Your task to perform on an android device: show emergency info Image 0: 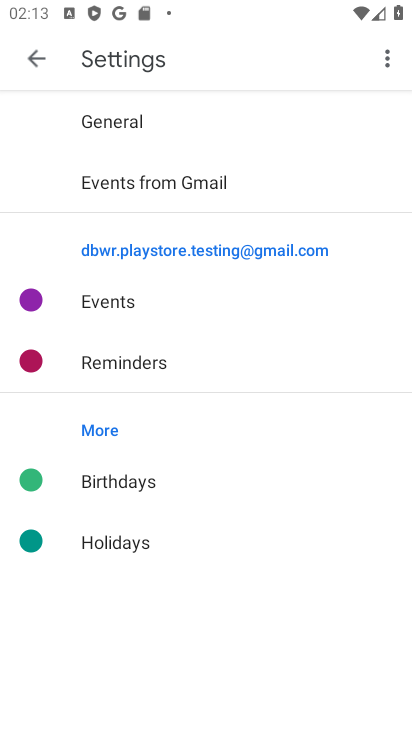
Step 0: press home button
Your task to perform on an android device: show emergency info Image 1: 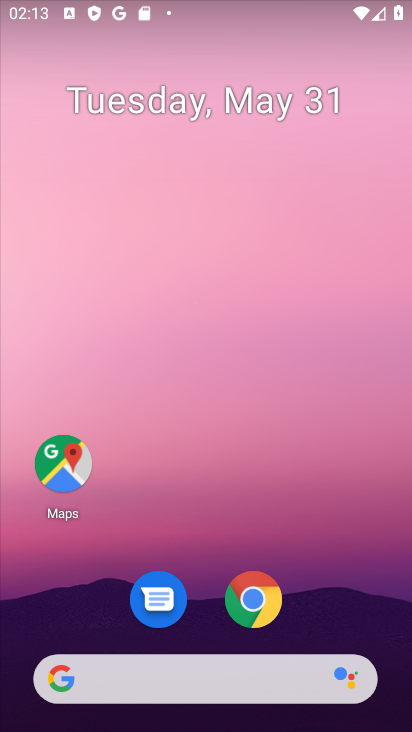
Step 1: drag from (350, 589) to (215, 76)
Your task to perform on an android device: show emergency info Image 2: 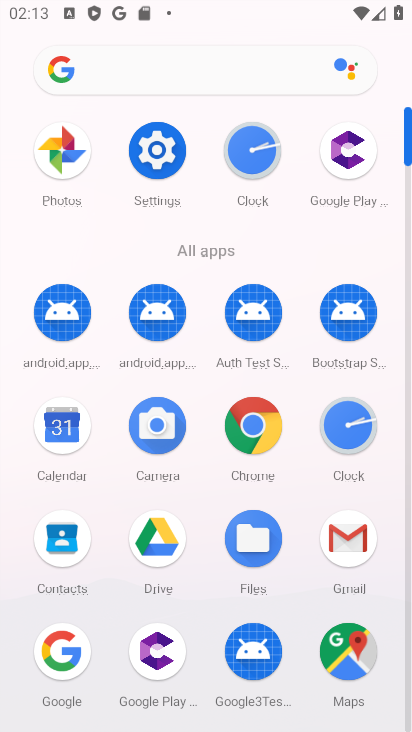
Step 2: click (151, 175)
Your task to perform on an android device: show emergency info Image 3: 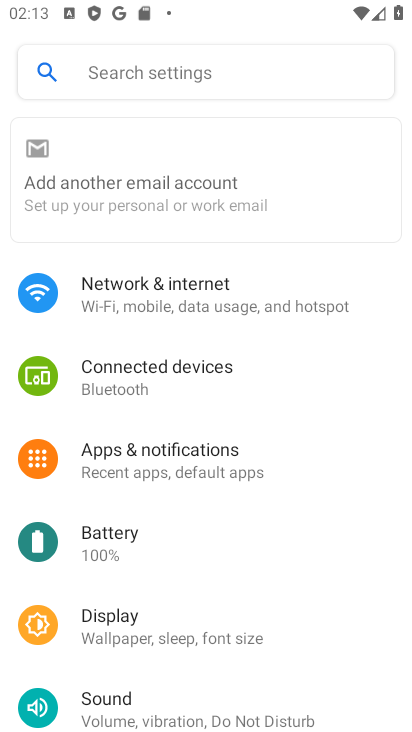
Step 3: drag from (223, 600) to (201, 72)
Your task to perform on an android device: show emergency info Image 4: 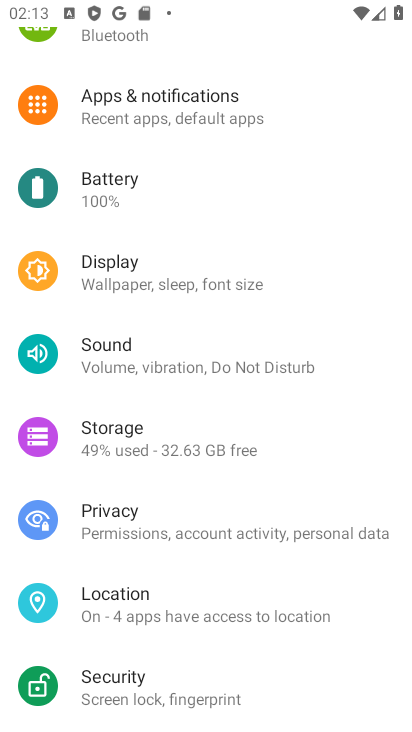
Step 4: drag from (238, 628) to (166, 151)
Your task to perform on an android device: show emergency info Image 5: 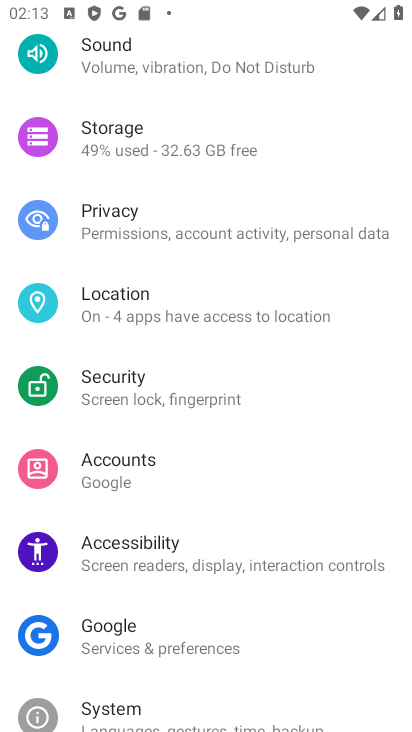
Step 5: drag from (208, 689) to (178, 224)
Your task to perform on an android device: show emergency info Image 6: 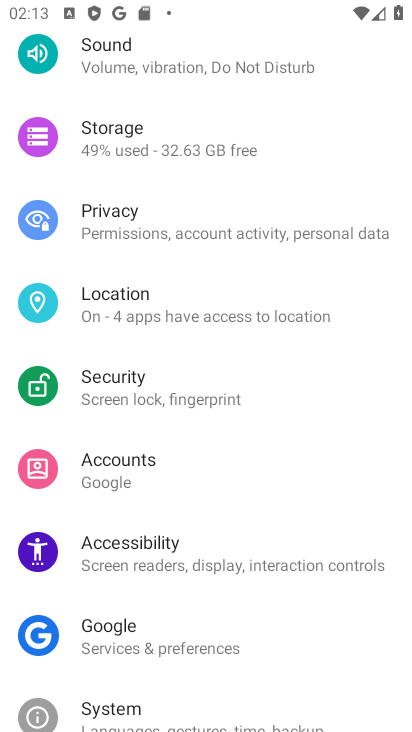
Step 6: drag from (181, 606) to (171, 196)
Your task to perform on an android device: show emergency info Image 7: 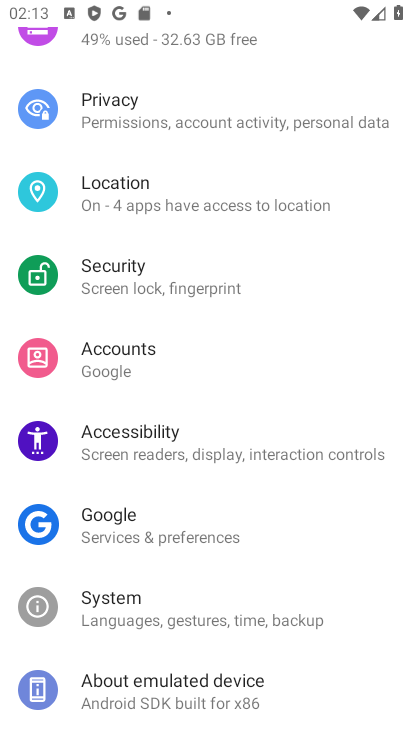
Step 7: click (175, 694)
Your task to perform on an android device: show emergency info Image 8: 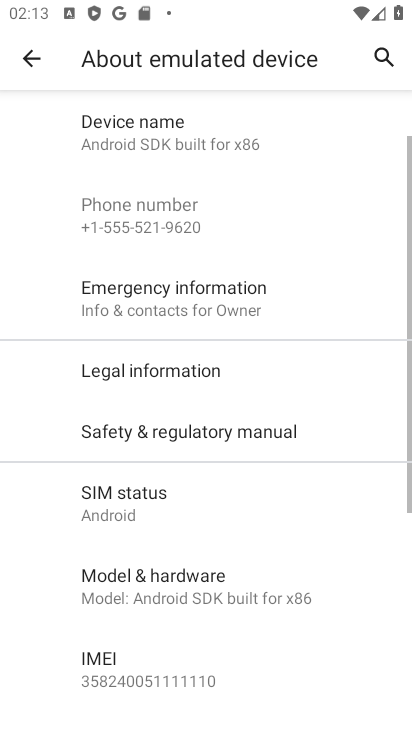
Step 8: drag from (202, 579) to (185, 100)
Your task to perform on an android device: show emergency info Image 9: 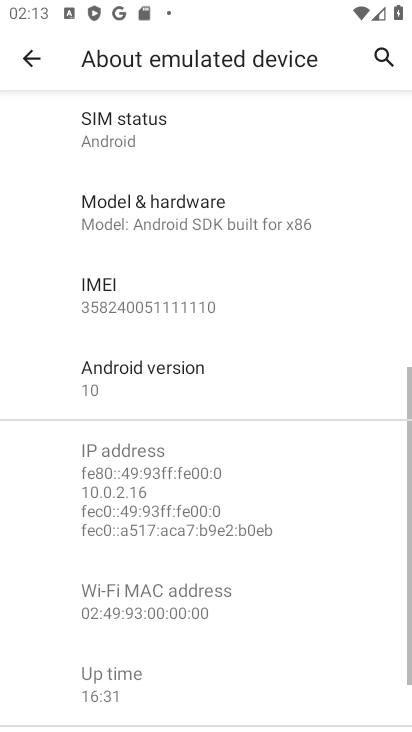
Step 9: drag from (186, 529) to (159, 727)
Your task to perform on an android device: show emergency info Image 10: 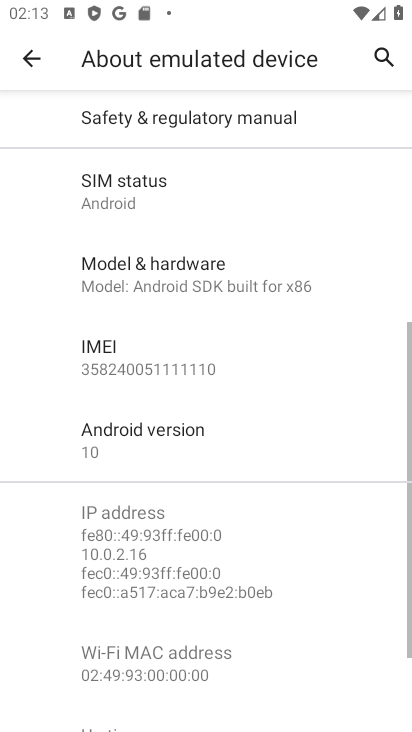
Step 10: drag from (172, 170) to (178, 630)
Your task to perform on an android device: show emergency info Image 11: 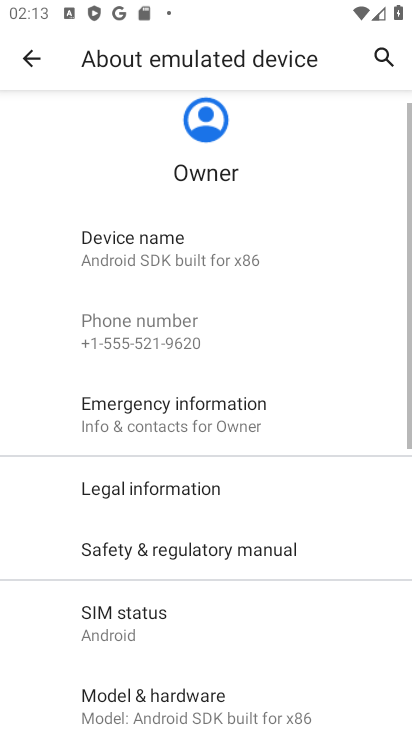
Step 11: click (175, 415)
Your task to perform on an android device: show emergency info Image 12: 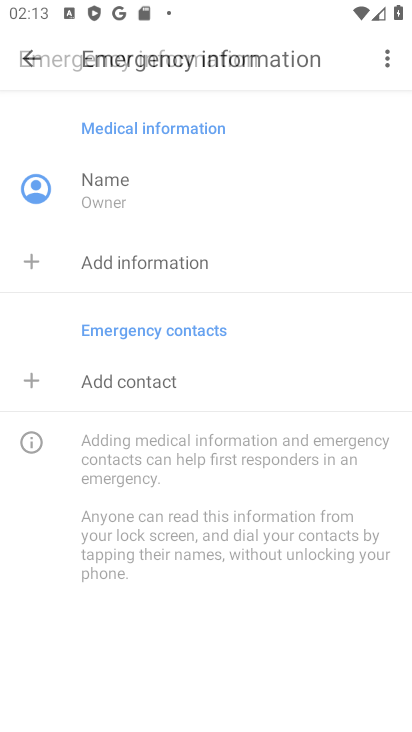
Step 12: task complete